Your task to perform on an android device: Go to Wikipedia Image 0: 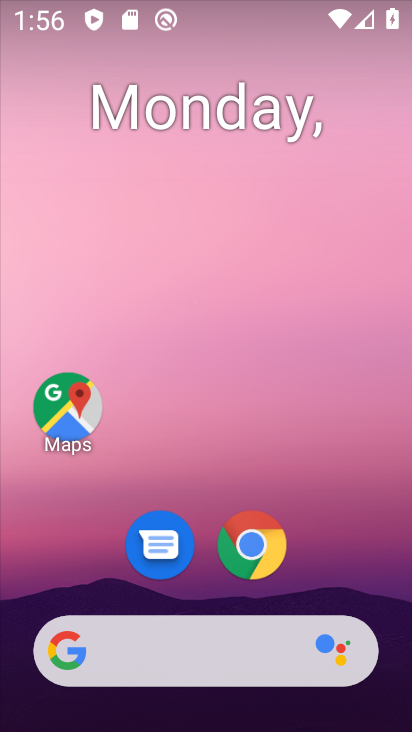
Step 0: click (245, 544)
Your task to perform on an android device: Go to Wikipedia Image 1: 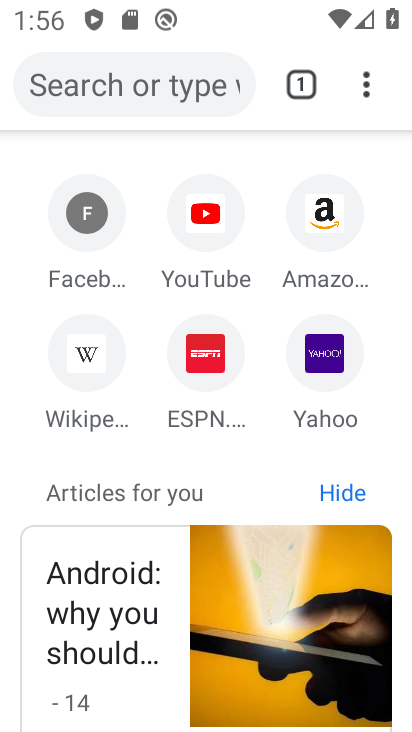
Step 1: click (94, 343)
Your task to perform on an android device: Go to Wikipedia Image 2: 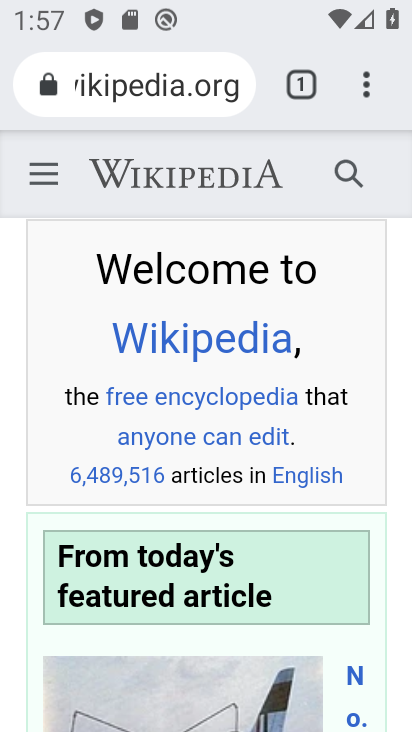
Step 2: task complete